Your task to perform on an android device: Show me recent news Image 0: 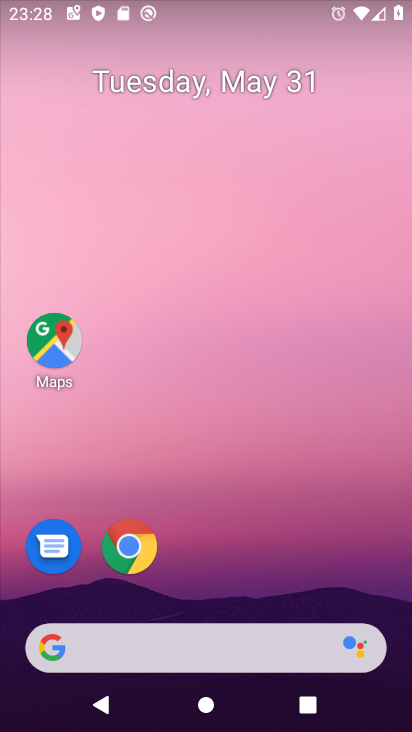
Step 0: click (249, 650)
Your task to perform on an android device: Show me recent news Image 1: 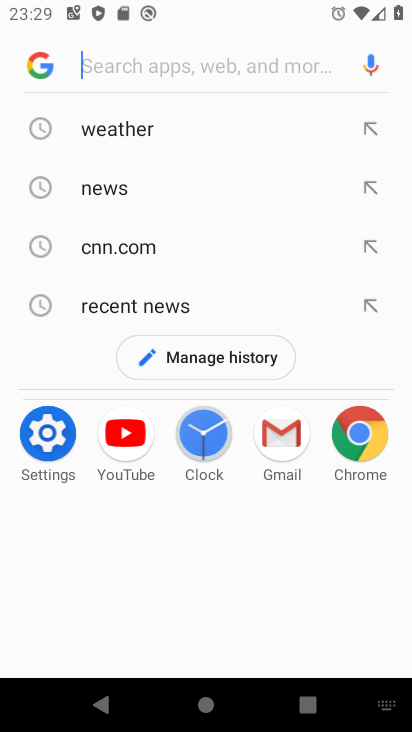
Step 1: click (214, 309)
Your task to perform on an android device: Show me recent news Image 2: 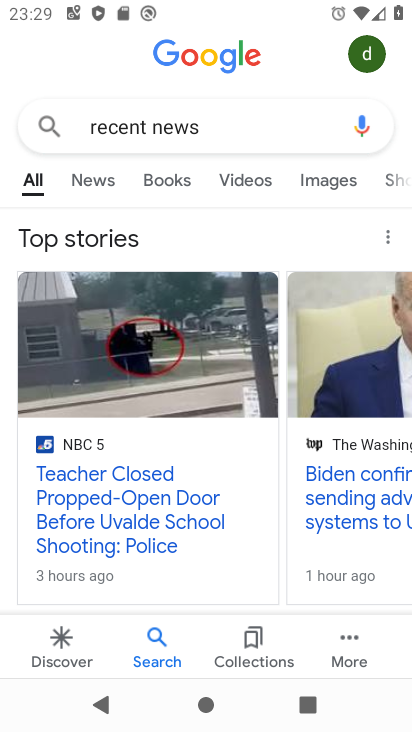
Step 2: task complete